Your task to perform on an android device: read, delete, or share a saved page in the chrome app Image 0: 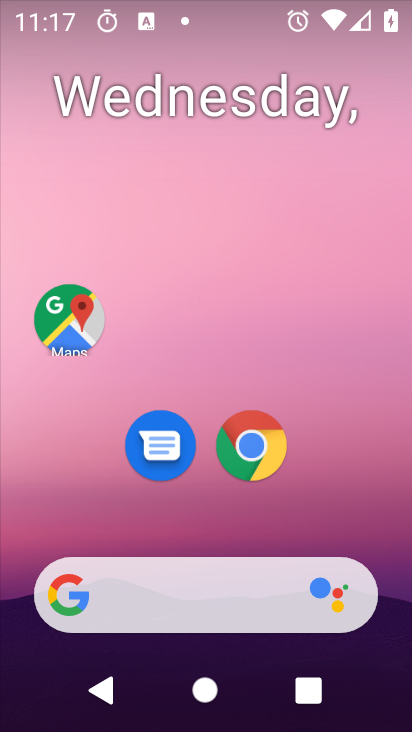
Step 0: drag from (381, 478) to (393, 53)
Your task to perform on an android device: read, delete, or share a saved page in the chrome app Image 1: 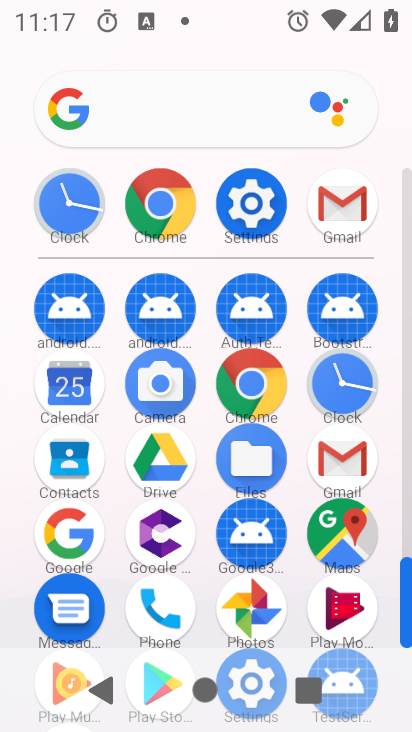
Step 1: click (156, 213)
Your task to perform on an android device: read, delete, or share a saved page in the chrome app Image 2: 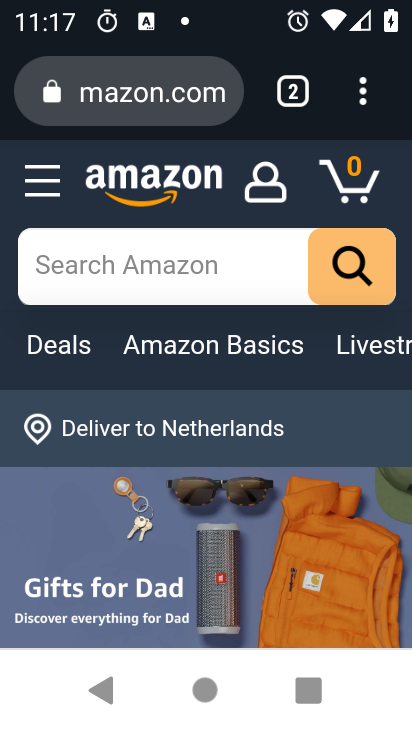
Step 2: task complete